Your task to perform on an android device: turn notification dots on Image 0: 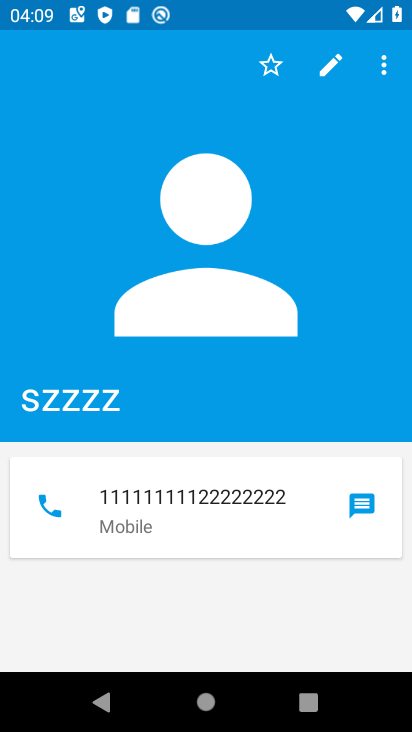
Step 0: press home button
Your task to perform on an android device: turn notification dots on Image 1: 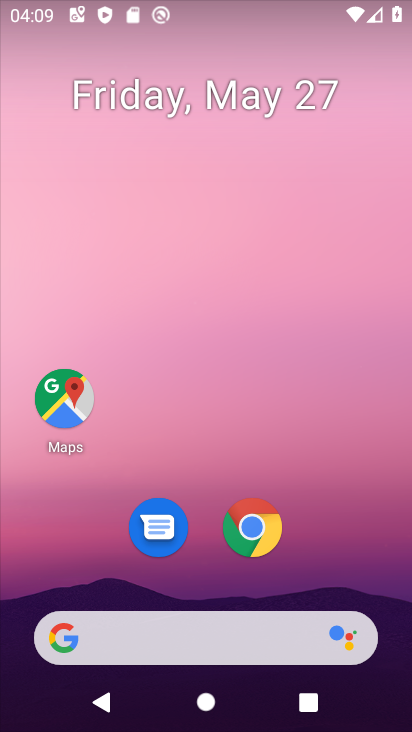
Step 1: drag from (312, 566) to (334, 205)
Your task to perform on an android device: turn notification dots on Image 2: 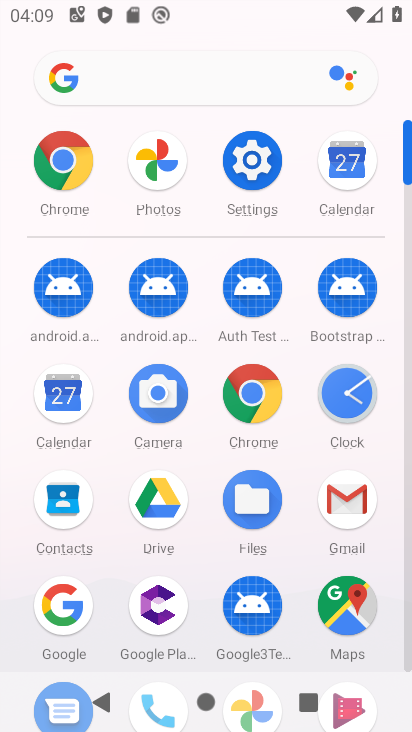
Step 2: click (249, 175)
Your task to perform on an android device: turn notification dots on Image 3: 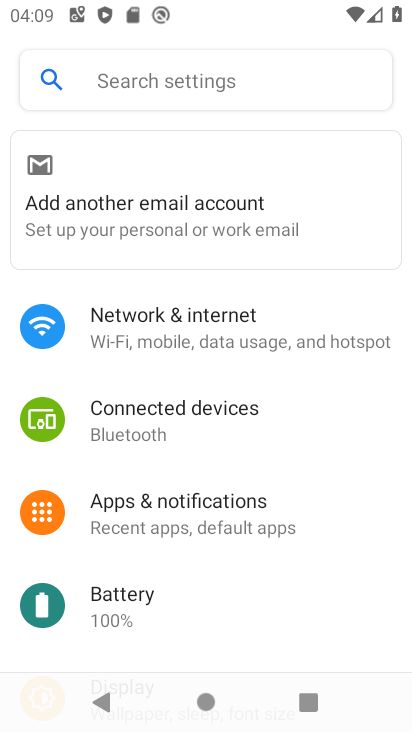
Step 3: click (226, 513)
Your task to perform on an android device: turn notification dots on Image 4: 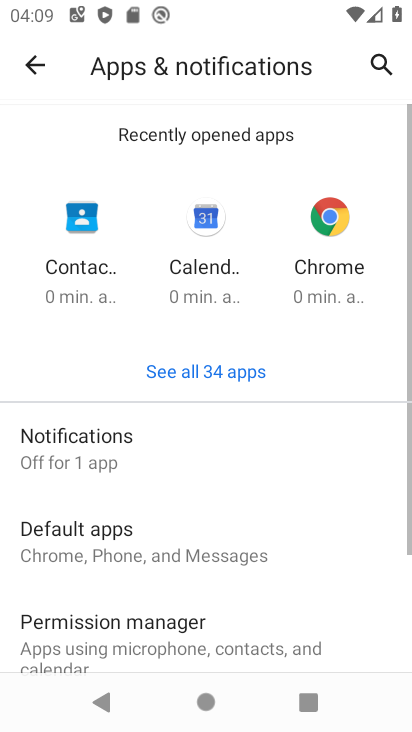
Step 4: click (98, 442)
Your task to perform on an android device: turn notification dots on Image 5: 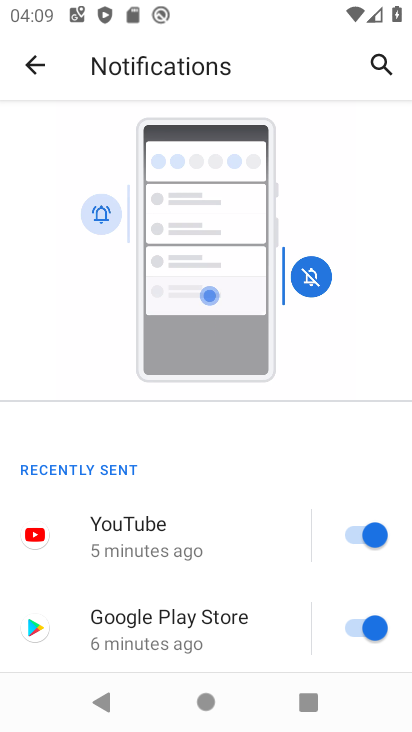
Step 5: drag from (249, 588) to (228, 143)
Your task to perform on an android device: turn notification dots on Image 6: 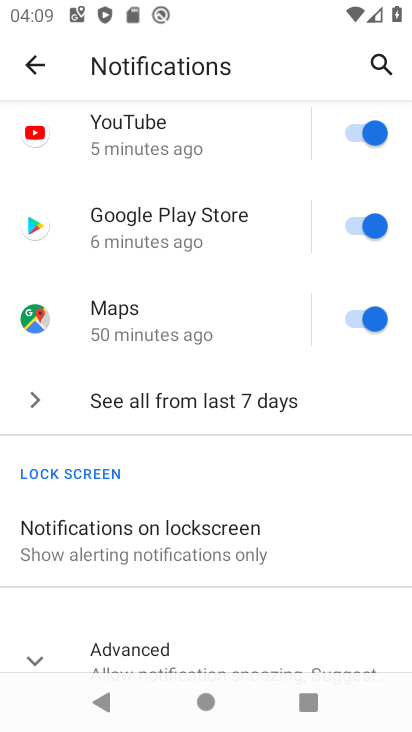
Step 6: drag from (255, 592) to (246, 355)
Your task to perform on an android device: turn notification dots on Image 7: 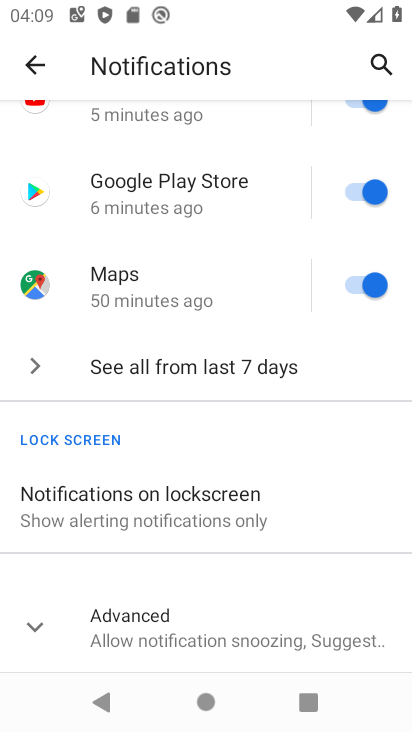
Step 7: click (176, 632)
Your task to perform on an android device: turn notification dots on Image 8: 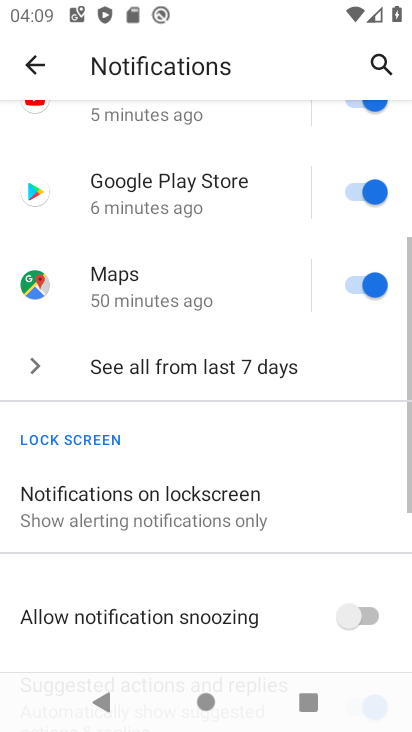
Step 8: task complete